Your task to perform on an android device: Open settings on Google Maps Image 0: 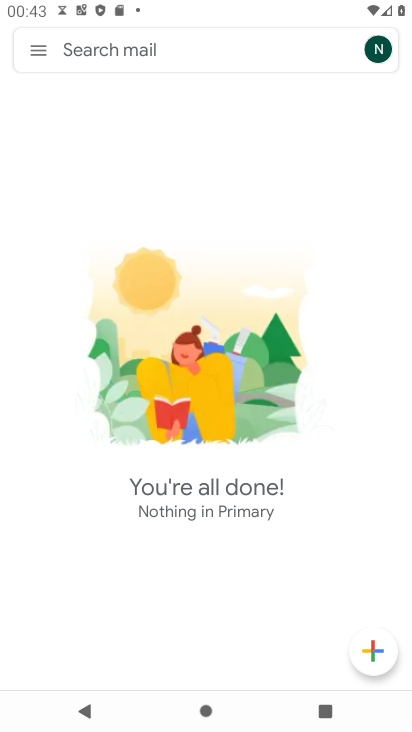
Step 0: press back button
Your task to perform on an android device: Open settings on Google Maps Image 1: 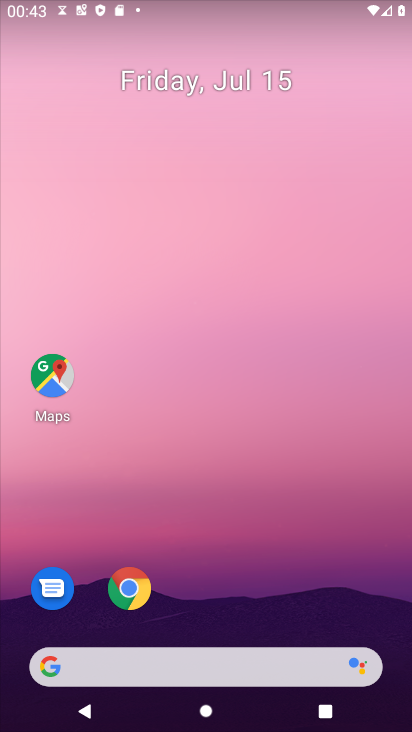
Step 1: click (64, 372)
Your task to perform on an android device: Open settings on Google Maps Image 2: 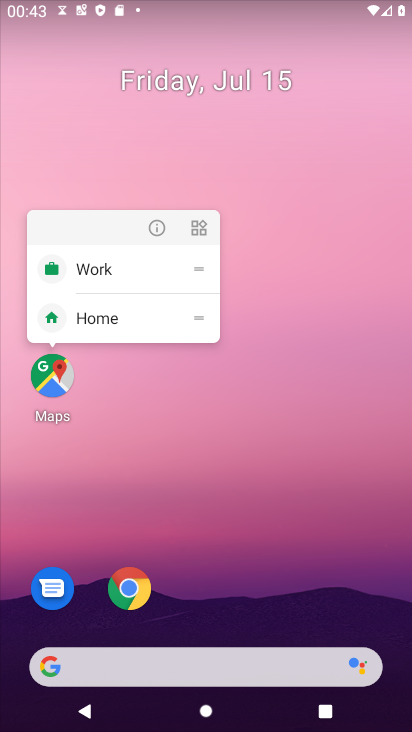
Step 2: click (61, 374)
Your task to perform on an android device: Open settings on Google Maps Image 3: 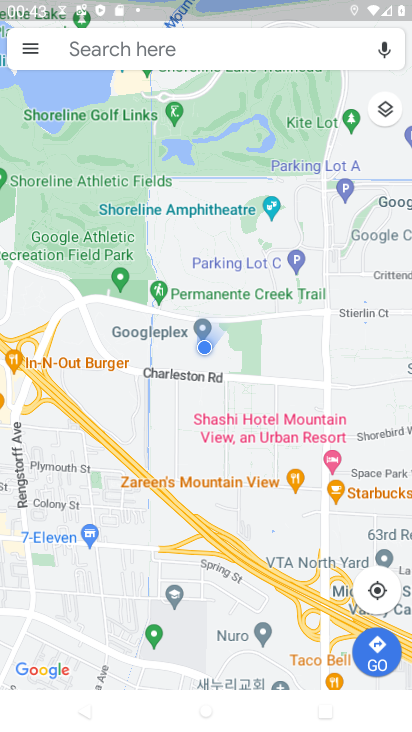
Step 3: click (35, 40)
Your task to perform on an android device: Open settings on Google Maps Image 4: 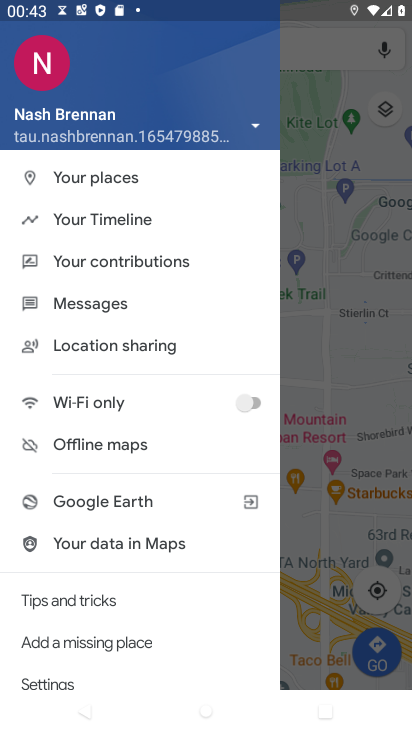
Step 4: drag from (110, 647) to (203, 146)
Your task to perform on an android device: Open settings on Google Maps Image 5: 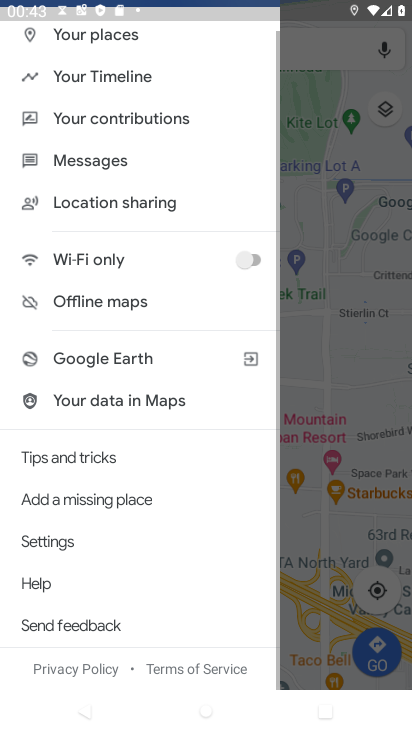
Step 5: click (51, 535)
Your task to perform on an android device: Open settings on Google Maps Image 6: 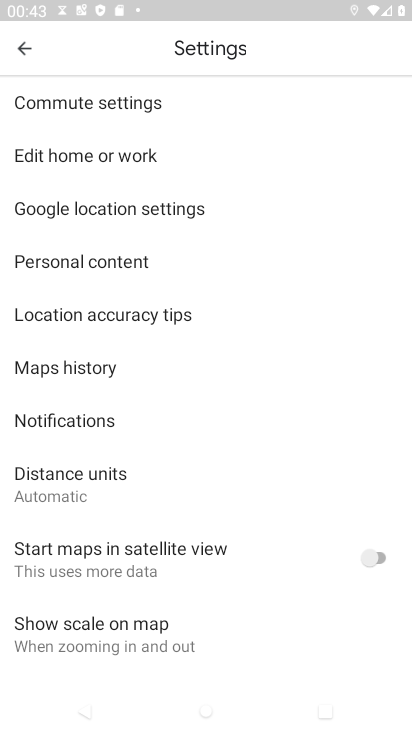
Step 6: task complete